Your task to perform on an android device: turn on data saver in the chrome app Image 0: 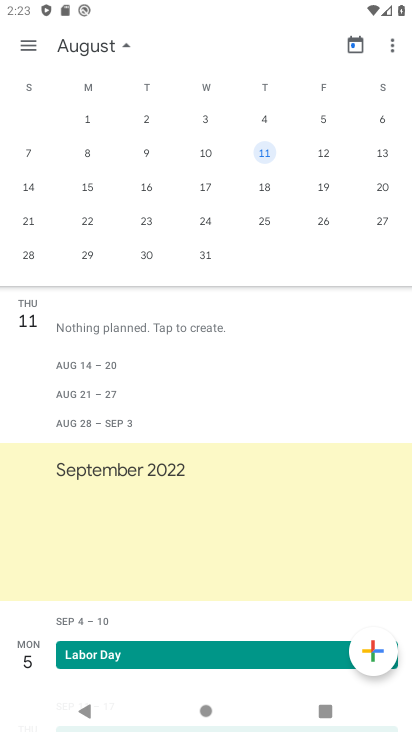
Step 0: press home button
Your task to perform on an android device: turn on data saver in the chrome app Image 1: 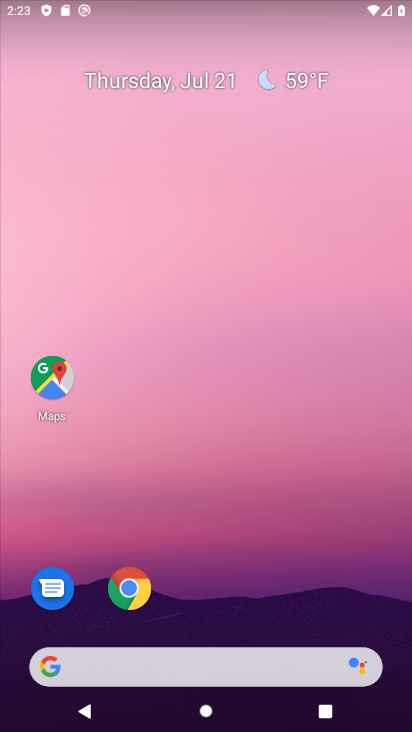
Step 1: click (123, 593)
Your task to perform on an android device: turn on data saver in the chrome app Image 2: 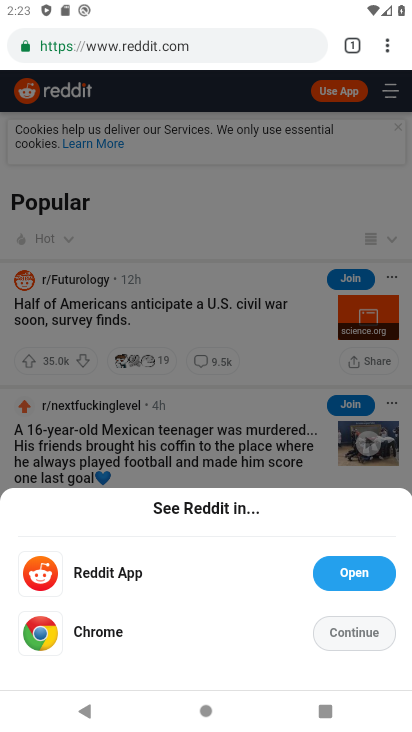
Step 2: click (385, 37)
Your task to perform on an android device: turn on data saver in the chrome app Image 3: 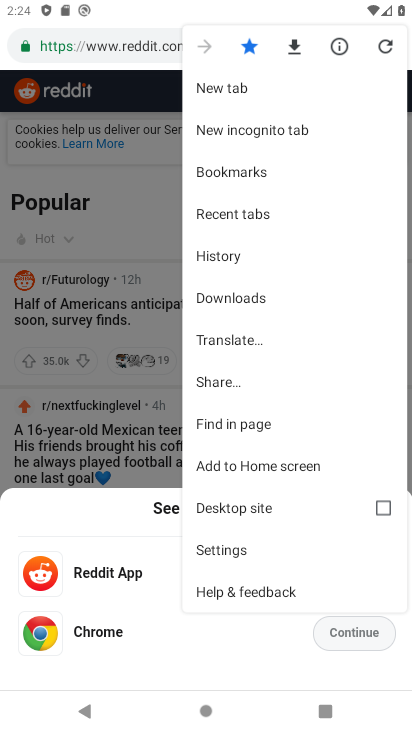
Step 3: click (225, 550)
Your task to perform on an android device: turn on data saver in the chrome app Image 4: 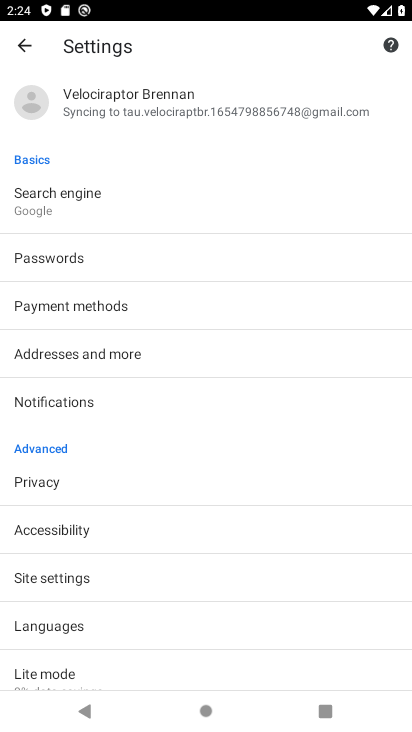
Step 4: click (49, 669)
Your task to perform on an android device: turn on data saver in the chrome app Image 5: 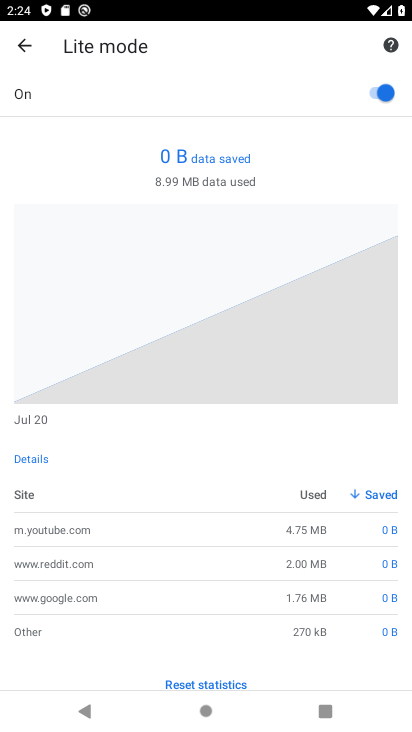
Step 5: task complete